Your task to perform on an android device: change text size in settings app Image 0: 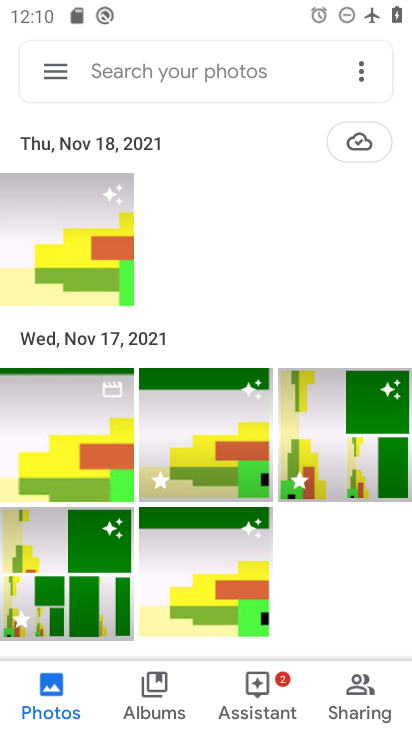
Step 0: press home button
Your task to perform on an android device: change text size in settings app Image 1: 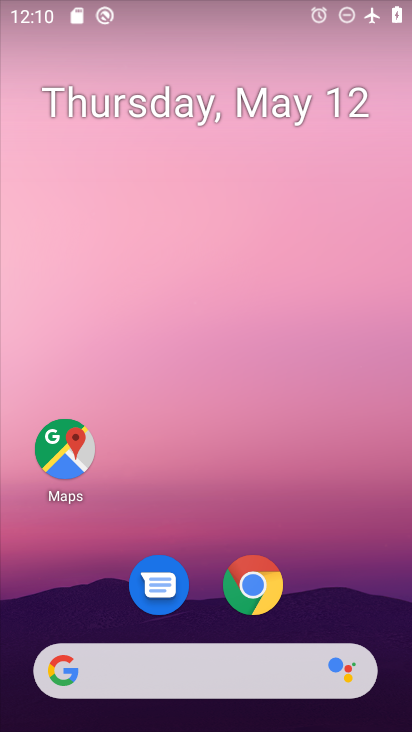
Step 1: drag from (258, 511) to (263, 27)
Your task to perform on an android device: change text size in settings app Image 2: 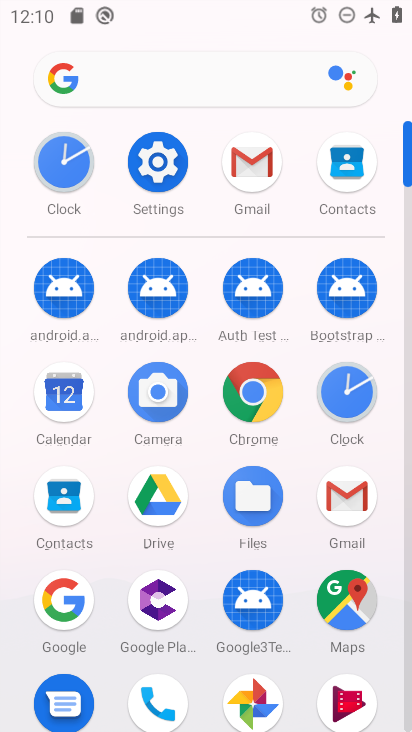
Step 2: click (166, 160)
Your task to perform on an android device: change text size in settings app Image 3: 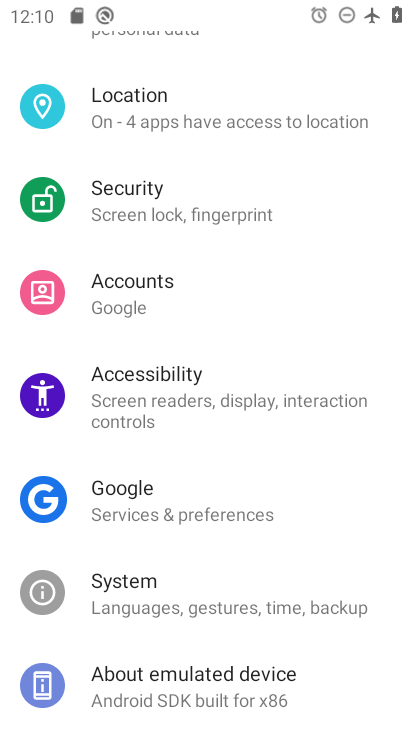
Step 3: drag from (219, 169) to (295, 659)
Your task to perform on an android device: change text size in settings app Image 4: 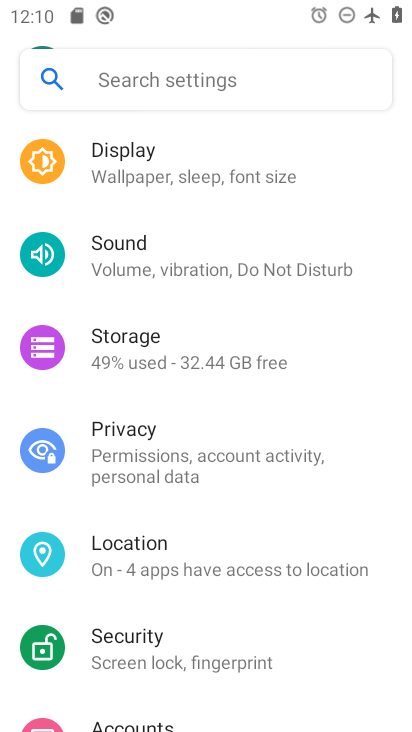
Step 4: click (224, 155)
Your task to perform on an android device: change text size in settings app Image 5: 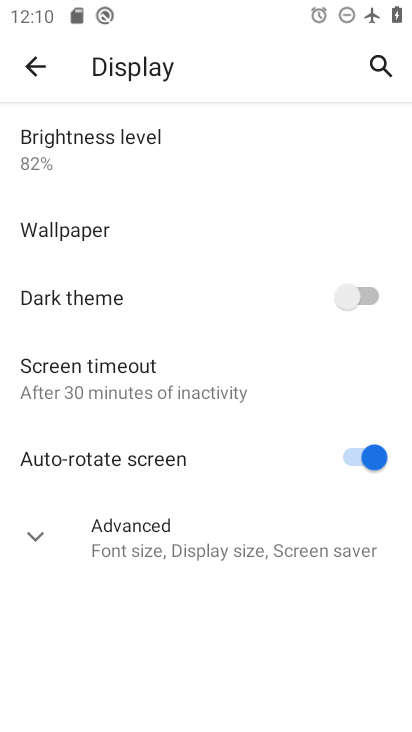
Step 5: click (30, 525)
Your task to perform on an android device: change text size in settings app Image 6: 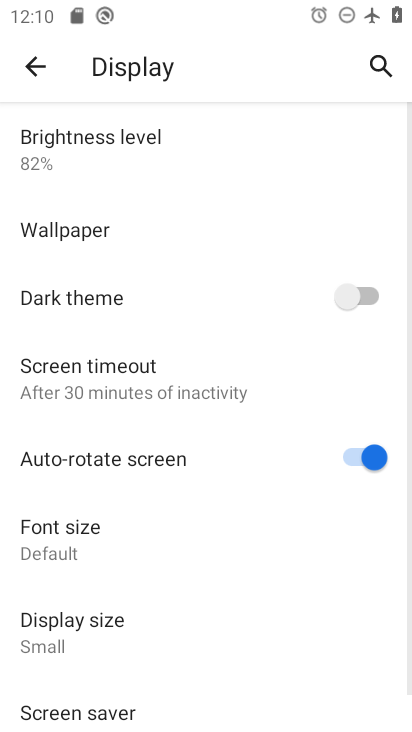
Step 6: click (141, 545)
Your task to perform on an android device: change text size in settings app Image 7: 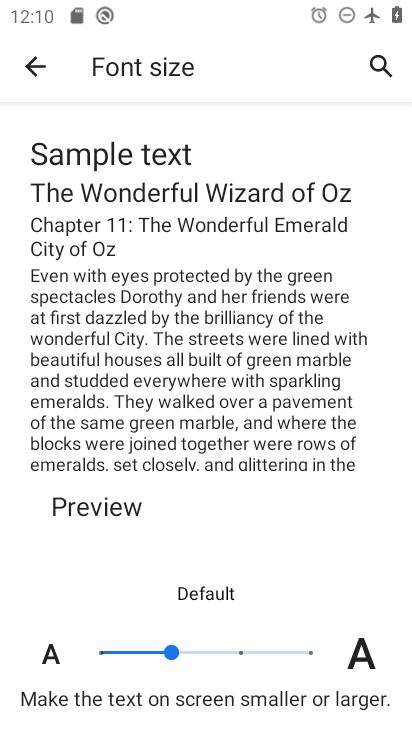
Step 7: click (98, 648)
Your task to perform on an android device: change text size in settings app Image 8: 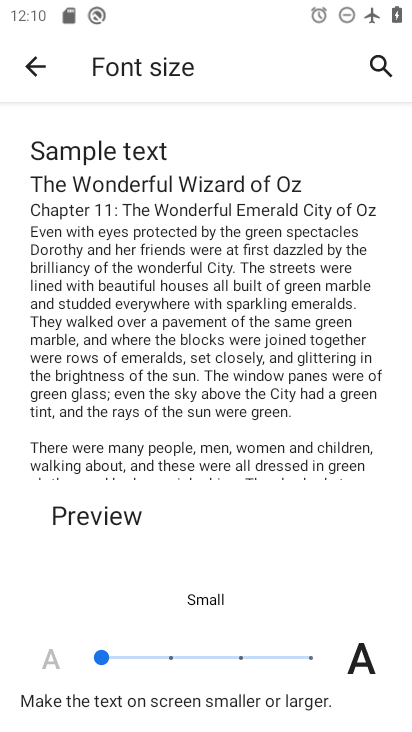
Step 8: task complete